Your task to perform on an android device: Open Maps and search for coffee Image 0: 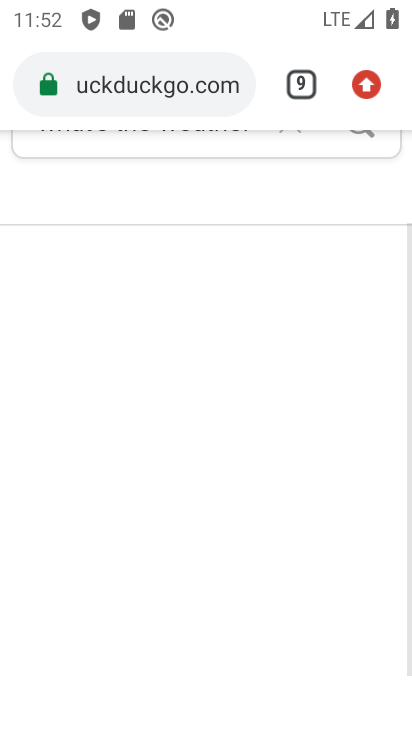
Step 0: press home button
Your task to perform on an android device: Open Maps and search for coffee Image 1: 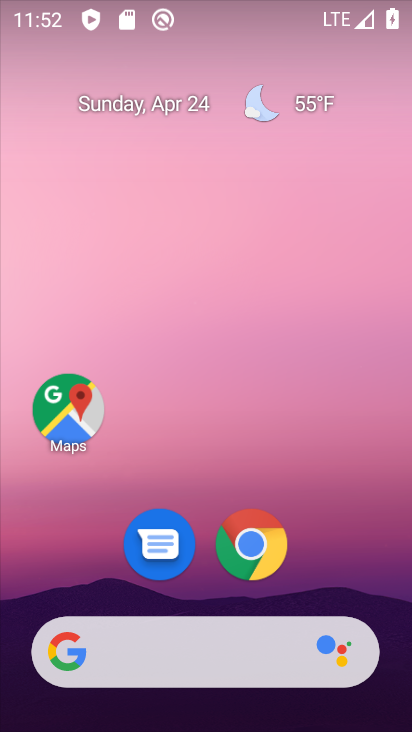
Step 1: click (79, 410)
Your task to perform on an android device: Open Maps and search for coffee Image 2: 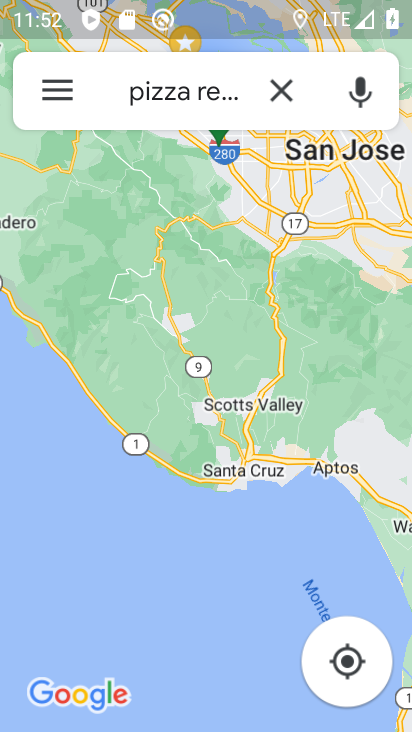
Step 2: click (281, 87)
Your task to perform on an android device: Open Maps and search for coffee Image 3: 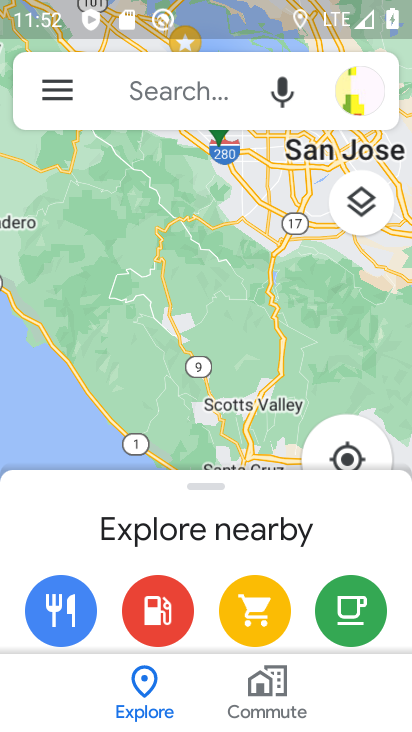
Step 3: click (183, 104)
Your task to perform on an android device: Open Maps and search for coffee Image 4: 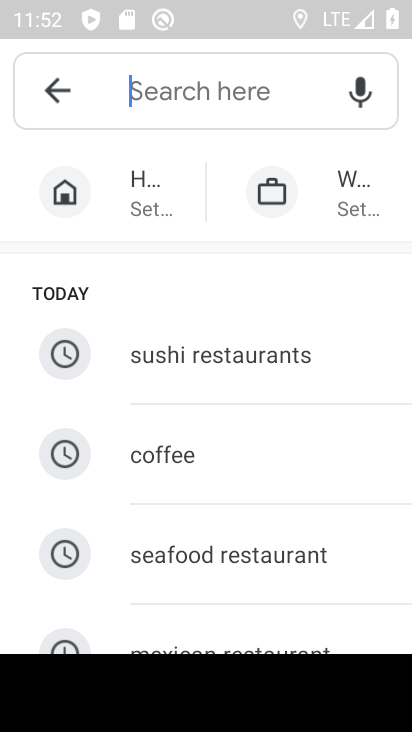
Step 4: click (160, 457)
Your task to perform on an android device: Open Maps and search for coffee Image 5: 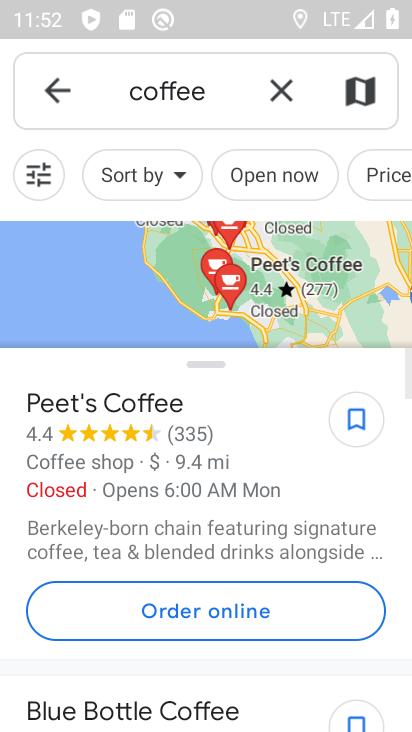
Step 5: task complete